Your task to perform on an android device: Open Chrome and go to settings Image 0: 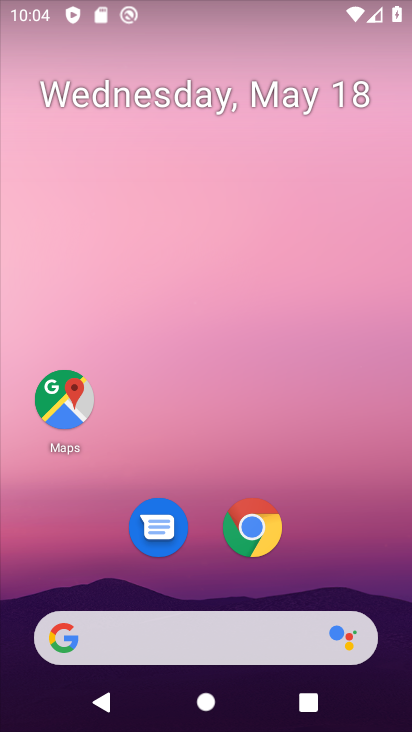
Step 0: click (263, 543)
Your task to perform on an android device: Open Chrome and go to settings Image 1: 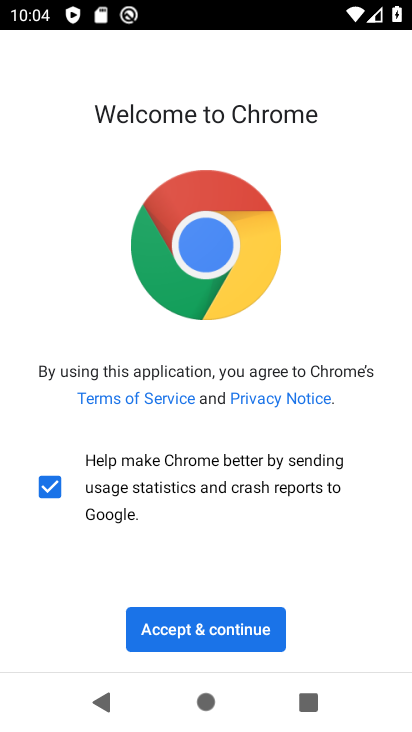
Step 1: click (238, 636)
Your task to perform on an android device: Open Chrome and go to settings Image 2: 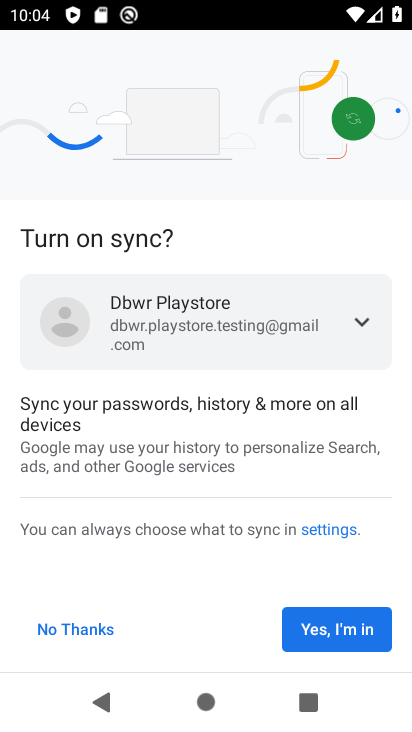
Step 2: click (319, 616)
Your task to perform on an android device: Open Chrome and go to settings Image 3: 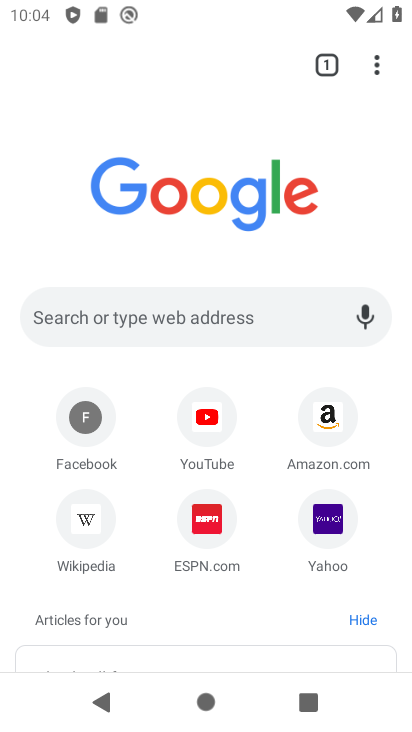
Step 3: click (378, 70)
Your task to perform on an android device: Open Chrome and go to settings Image 4: 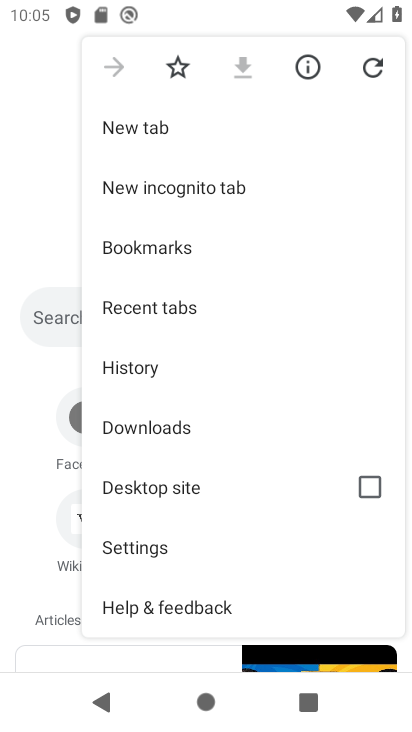
Step 4: click (227, 554)
Your task to perform on an android device: Open Chrome and go to settings Image 5: 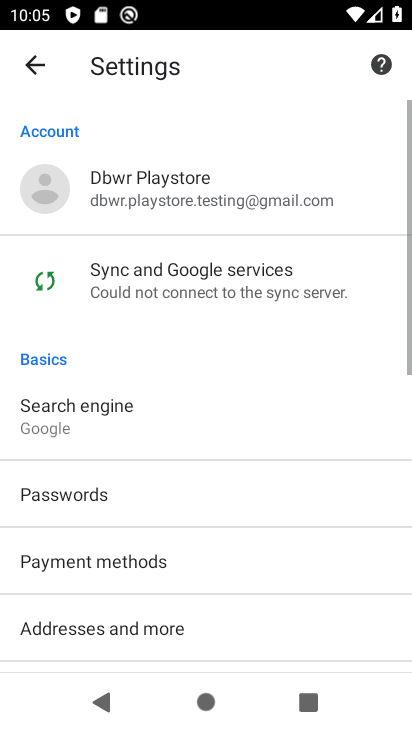
Step 5: task complete